Your task to perform on an android device: When is my next meeting? Image 0: 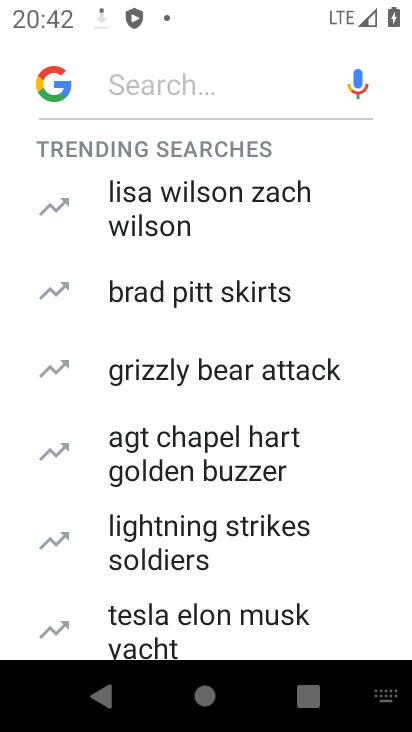
Step 0: press back button
Your task to perform on an android device: When is my next meeting? Image 1: 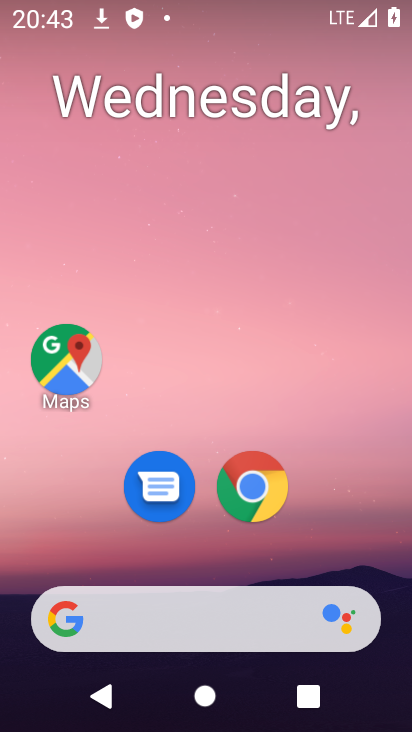
Step 1: drag from (209, 565) to (243, 70)
Your task to perform on an android device: When is my next meeting? Image 2: 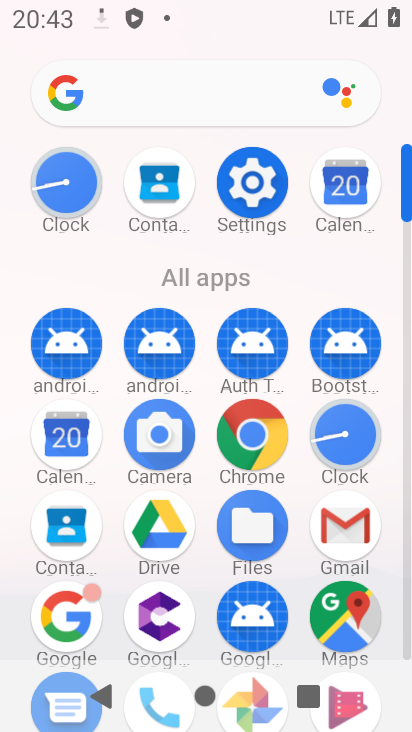
Step 2: click (207, 96)
Your task to perform on an android device: When is my next meeting? Image 3: 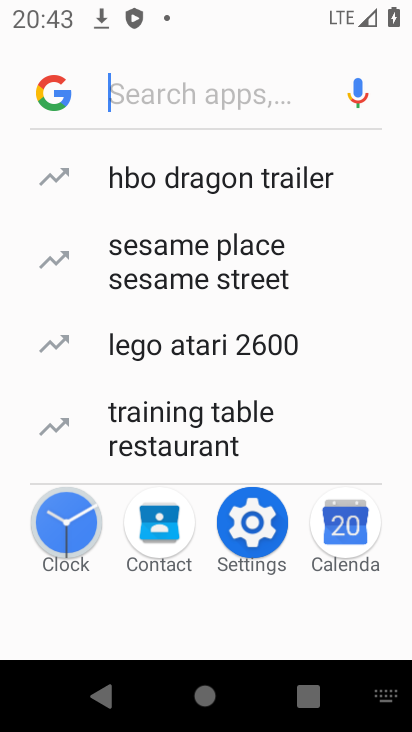
Step 3: press back button
Your task to perform on an android device: When is my next meeting? Image 4: 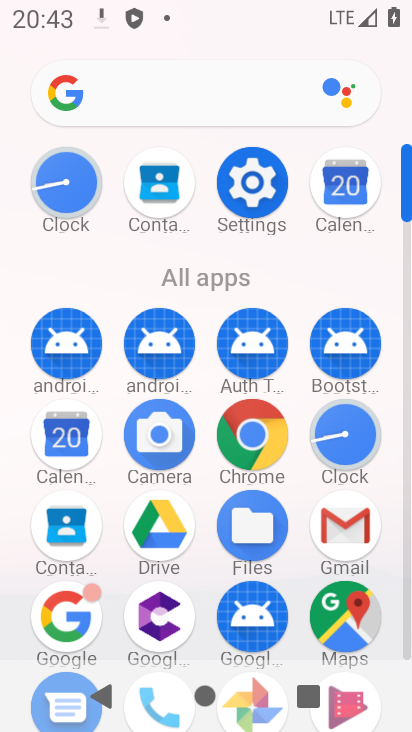
Step 4: click (167, 103)
Your task to perform on an android device: When is my next meeting? Image 5: 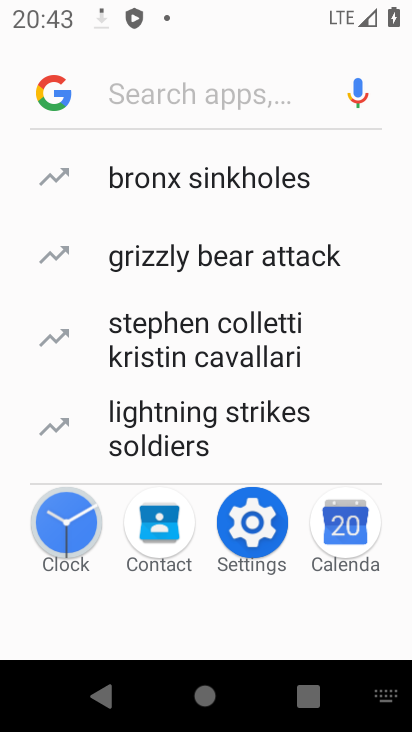
Step 5: type "weather"
Your task to perform on an android device: When is my next meeting? Image 6: 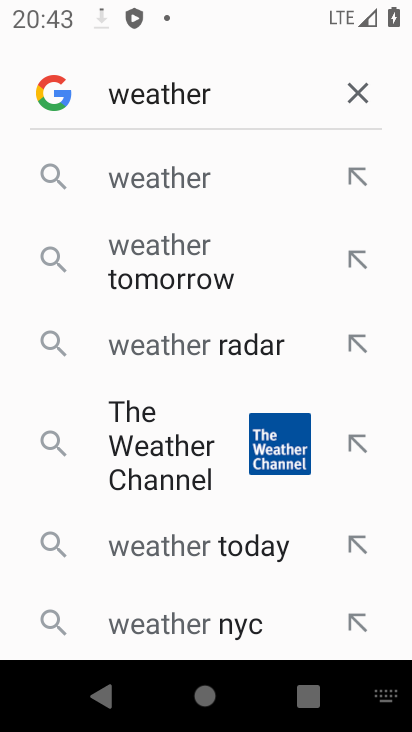
Step 6: press back button
Your task to perform on an android device: When is my next meeting? Image 7: 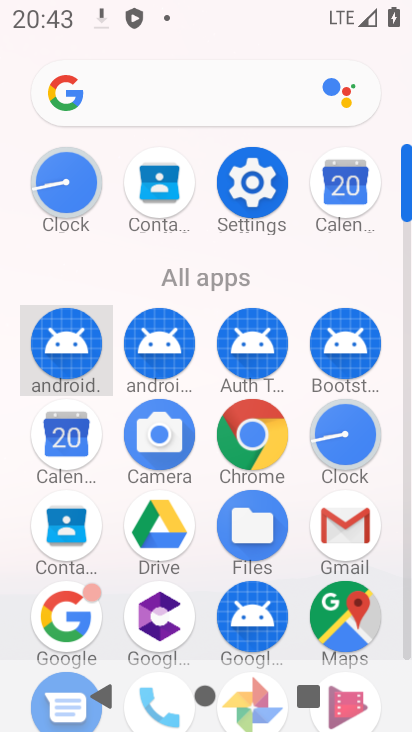
Step 7: press back button
Your task to perform on an android device: When is my next meeting? Image 8: 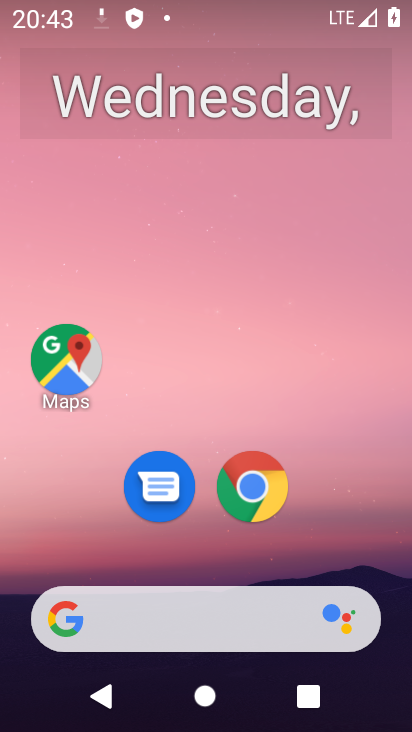
Step 8: drag from (203, 549) to (257, 21)
Your task to perform on an android device: When is my next meeting? Image 9: 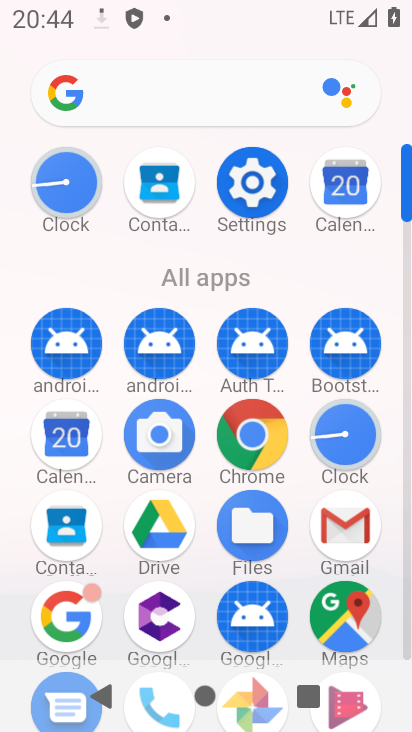
Step 9: click (164, 190)
Your task to perform on an android device: When is my next meeting? Image 10: 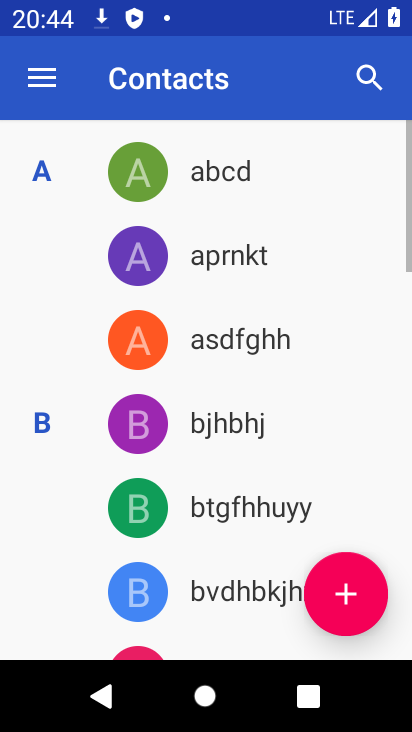
Step 10: press back button
Your task to perform on an android device: When is my next meeting? Image 11: 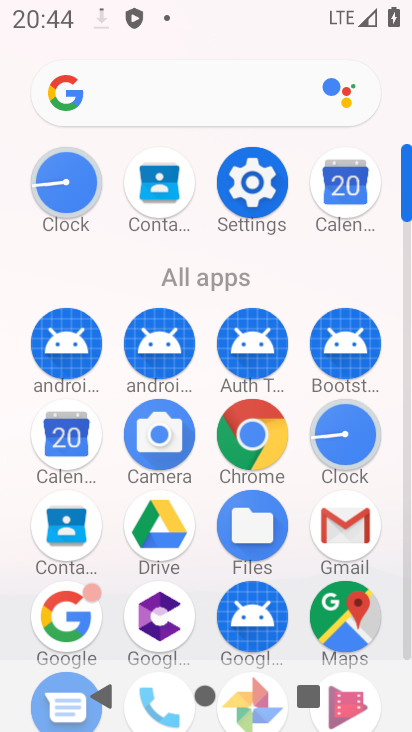
Step 11: click (69, 438)
Your task to perform on an android device: When is my next meeting? Image 12: 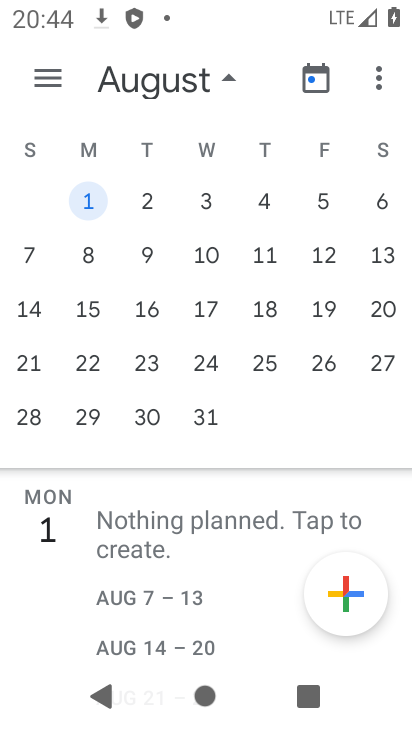
Step 12: drag from (54, 308) to (389, 268)
Your task to perform on an android device: When is my next meeting? Image 13: 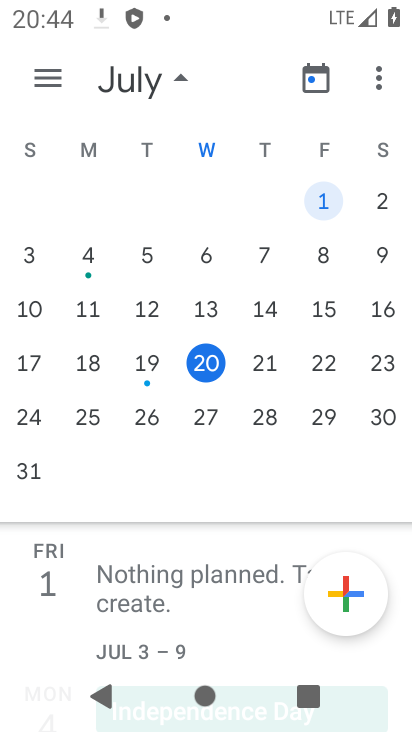
Step 13: click (207, 362)
Your task to perform on an android device: When is my next meeting? Image 14: 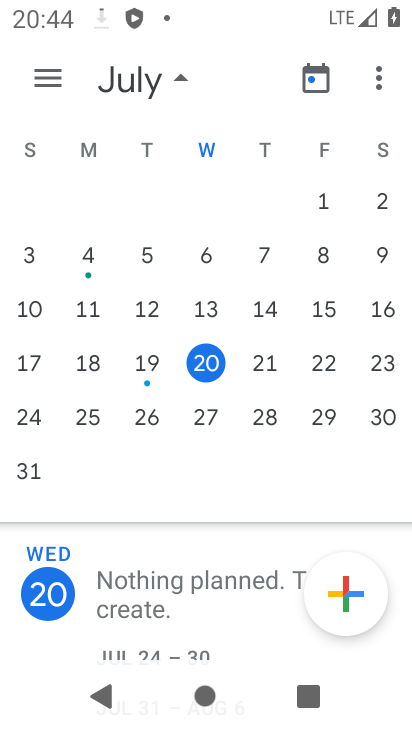
Step 14: drag from (145, 624) to (253, 64)
Your task to perform on an android device: When is my next meeting? Image 15: 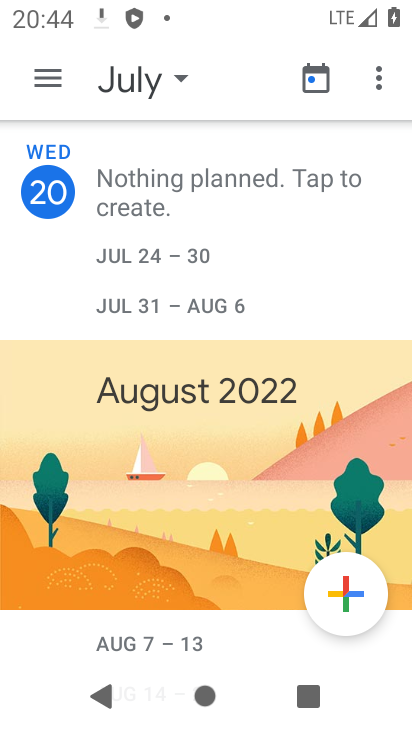
Step 15: drag from (224, 199) to (219, 458)
Your task to perform on an android device: When is my next meeting? Image 16: 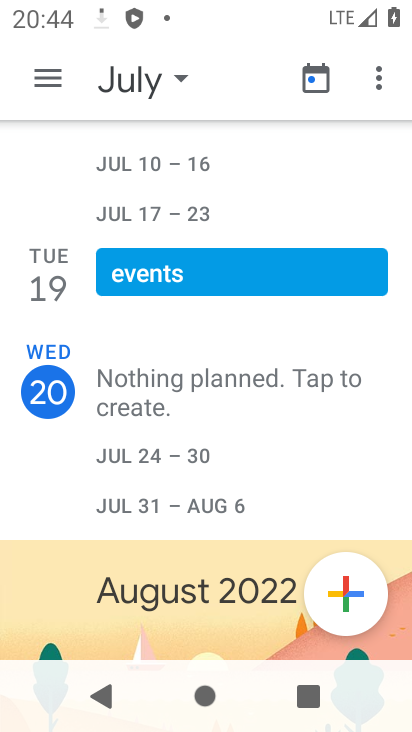
Step 16: drag from (197, 273) to (197, 410)
Your task to perform on an android device: When is my next meeting? Image 17: 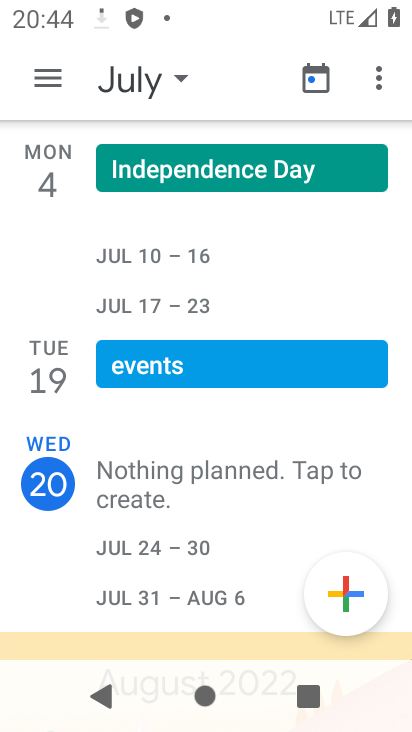
Step 17: click (157, 75)
Your task to perform on an android device: When is my next meeting? Image 18: 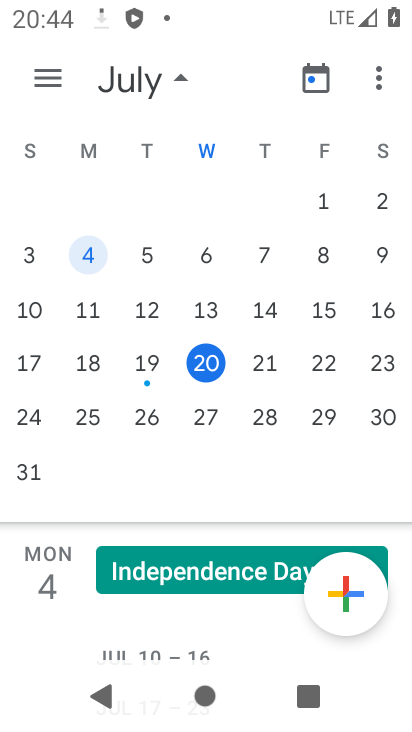
Step 18: click (256, 361)
Your task to perform on an android device: When is my next meeting? Image 19: 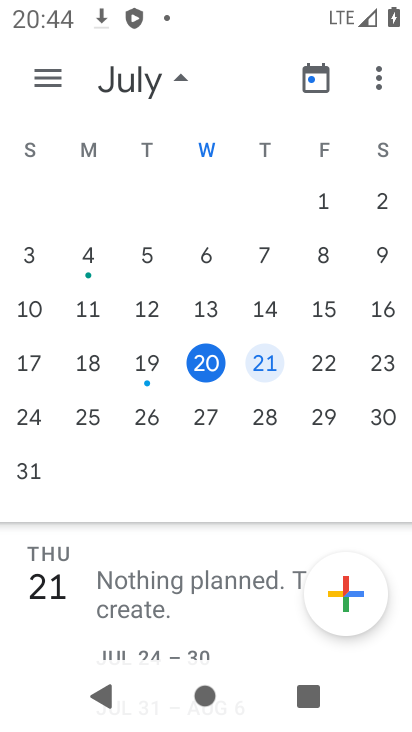
Step 19: task complete